Your task to perform on an android device: Go to network settings Image 0: 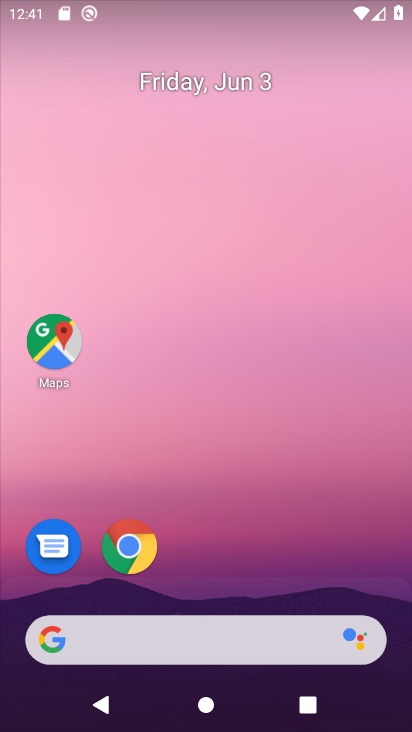
Step 0: drag from (289, 501) to (234, 69)
Your task to perform on an android device: Go to network settings Image 1: 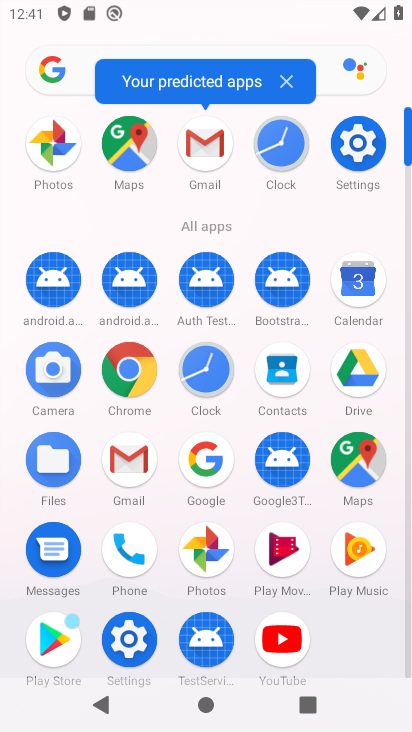
Step 1: click (357, 144)
Your task to perform on an android device: Go to network settings Image 2: 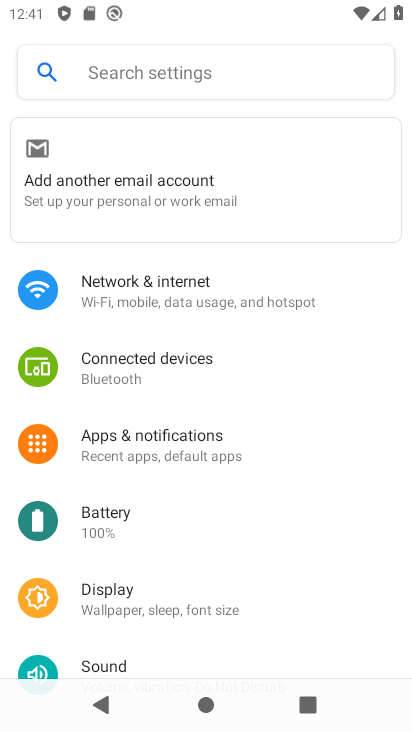
Step 2: click (147, 293)
Your task to perform on an android device: Go to network settings Image 3: 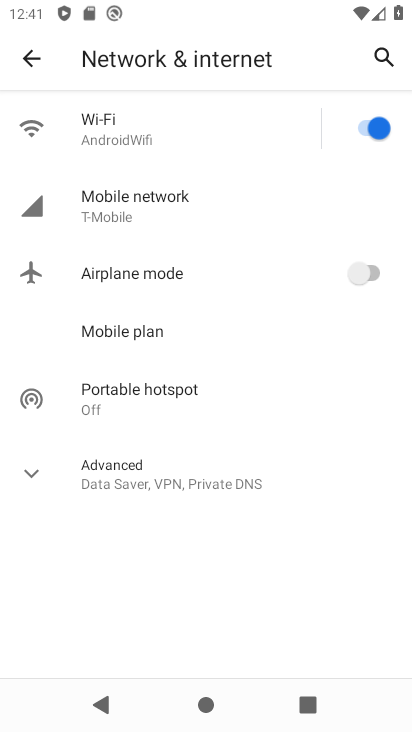
Step 3: click (121, 139)
Your task to perform on an android device: Go to network settings Image 4: 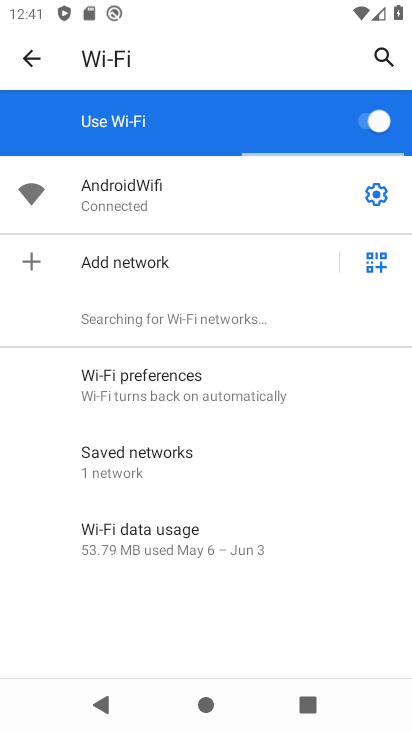
Step 4: task complete